Your task to perform on an android device: open chrome privacy settings Image 0: 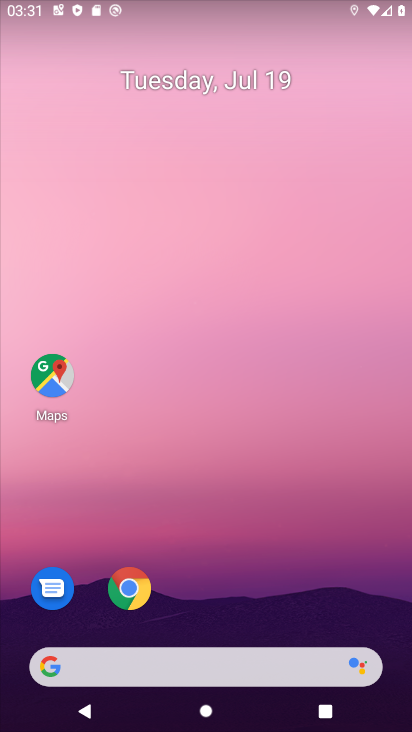
Step 0: click (129, 591)
Your task to perform on an android device: open chrome privacy settings Image 1: 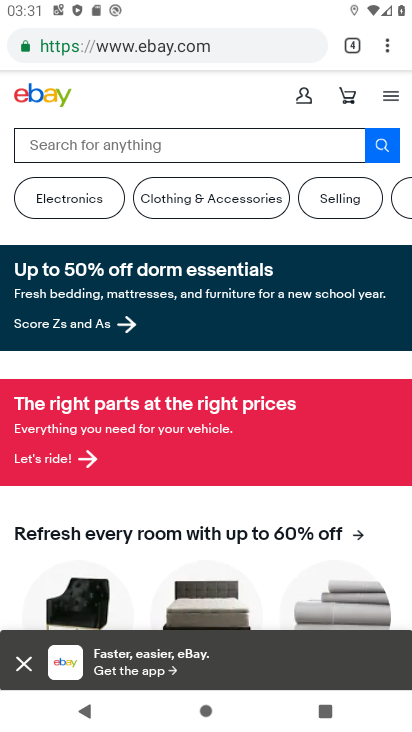
Step 1: click (382, 43)
Your task to perform on an android device: open chrome privacy settings Image 2: 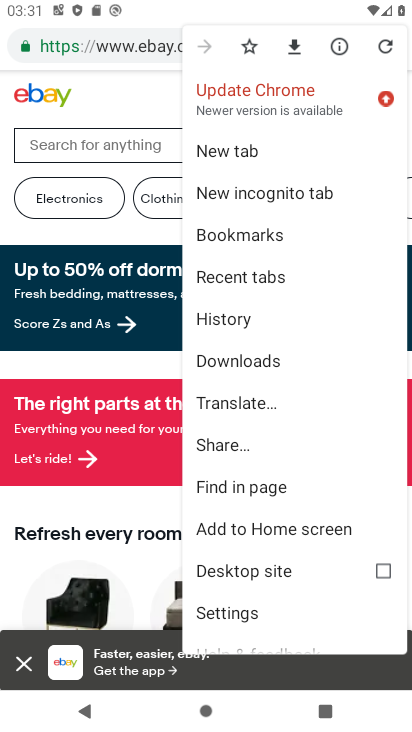
Step 2: click (232, 614)
Your task to perform on an android device: open chrome privacy settings Image 3: 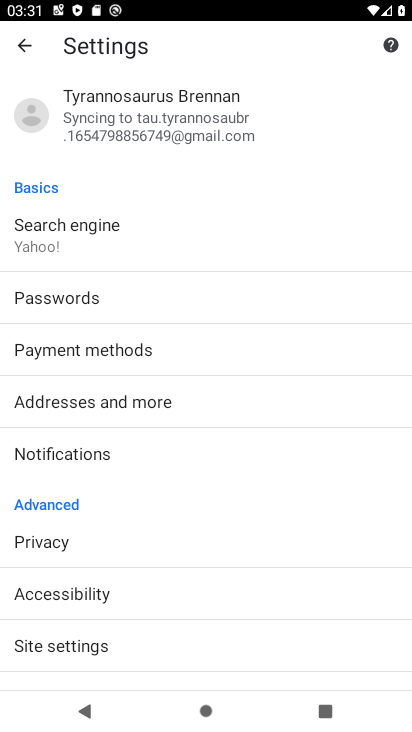
Step 3: click (53, 533)
Your task to perform on an android device: open chrome privacy settings Image 4: 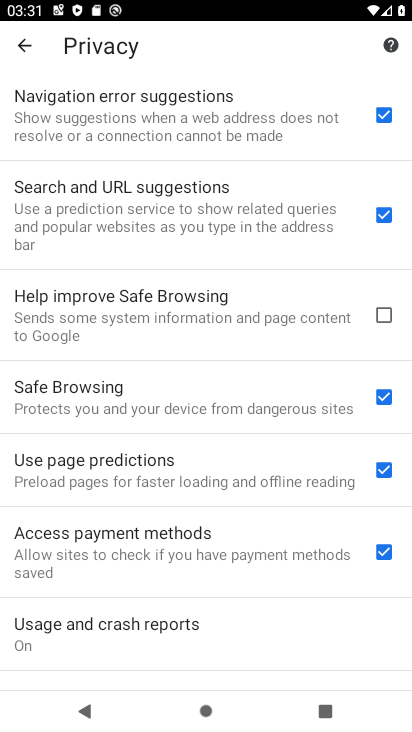
Step 4: task complete